Your task to perform on an android device: Go to display settings Image 0: 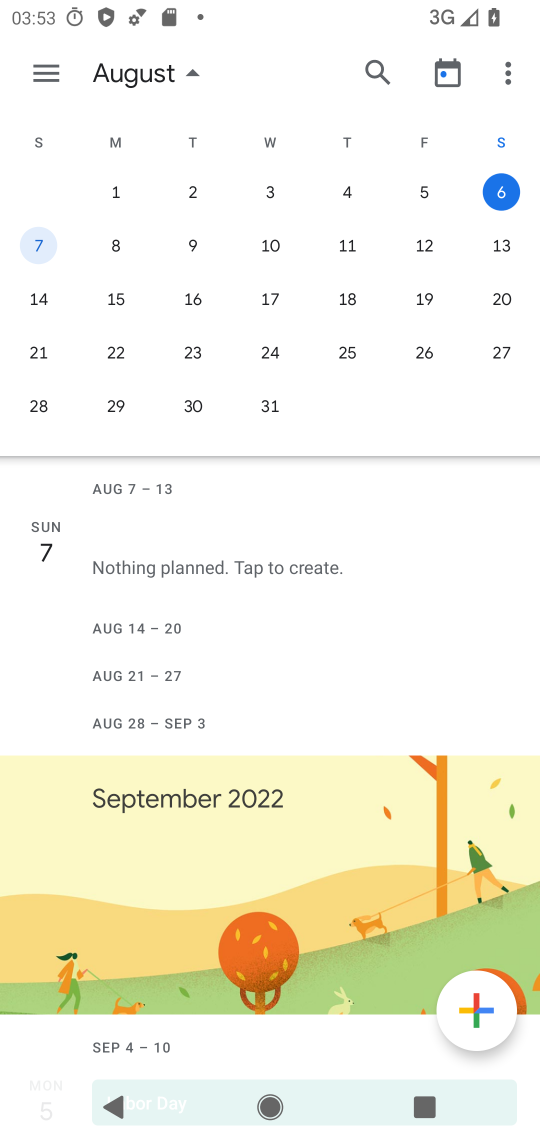
Step 0: press home button
Your task to perform on an android device: Go to display settings Image 1: 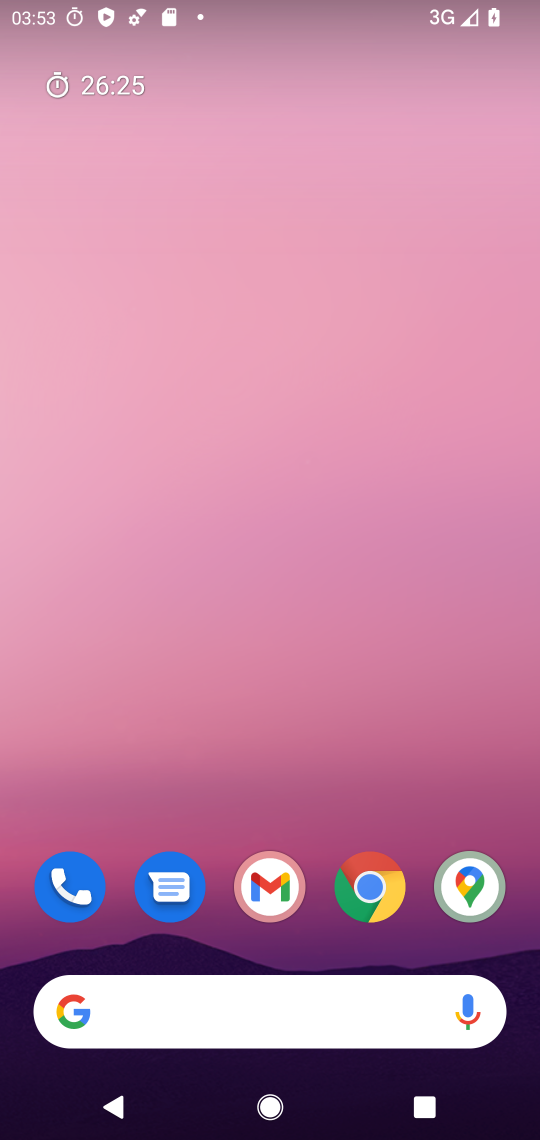
Step 1: drag from (303, 835) to (345, 360)
Your task to perform on an android device: Go to display settings Image 2: 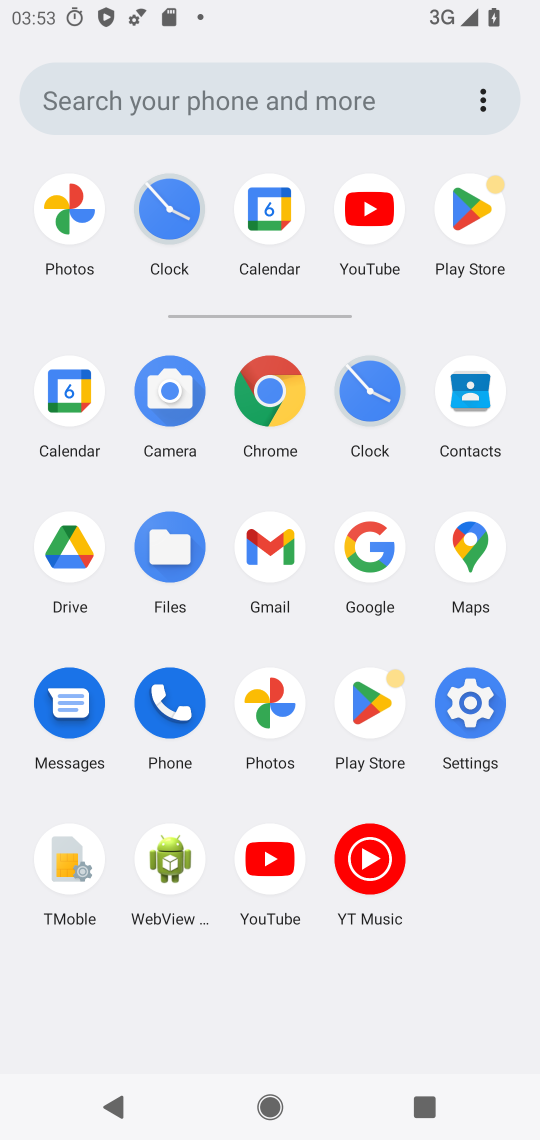
Step 2: click (449, 701)
Your task to perform on an android device: Go to display settings Image 3: 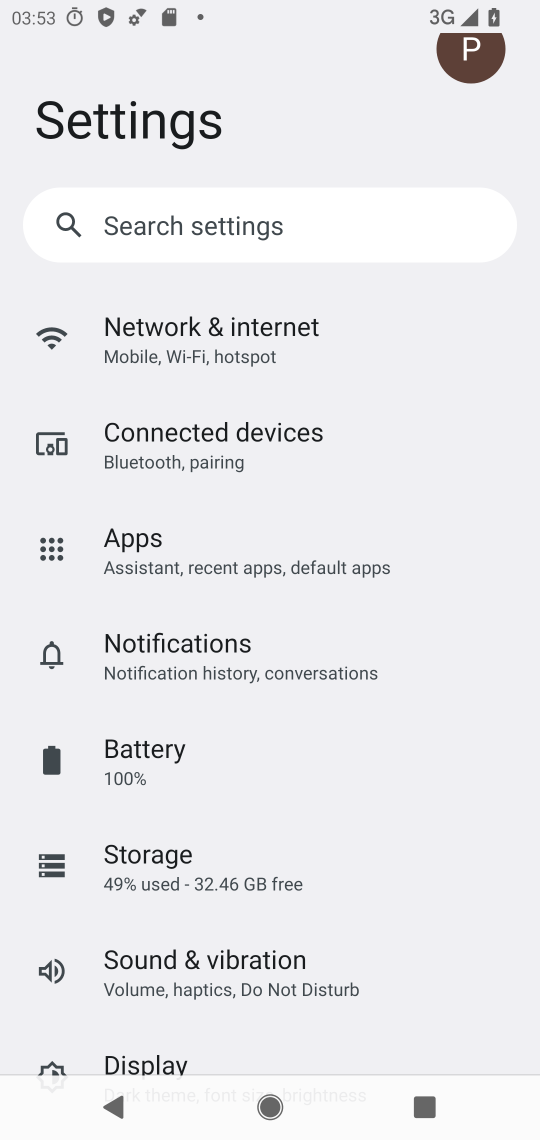
Step 3: drag from (480, 800) to (480, 672)
Your task to perform on an android device: Go to display settings Image 4: 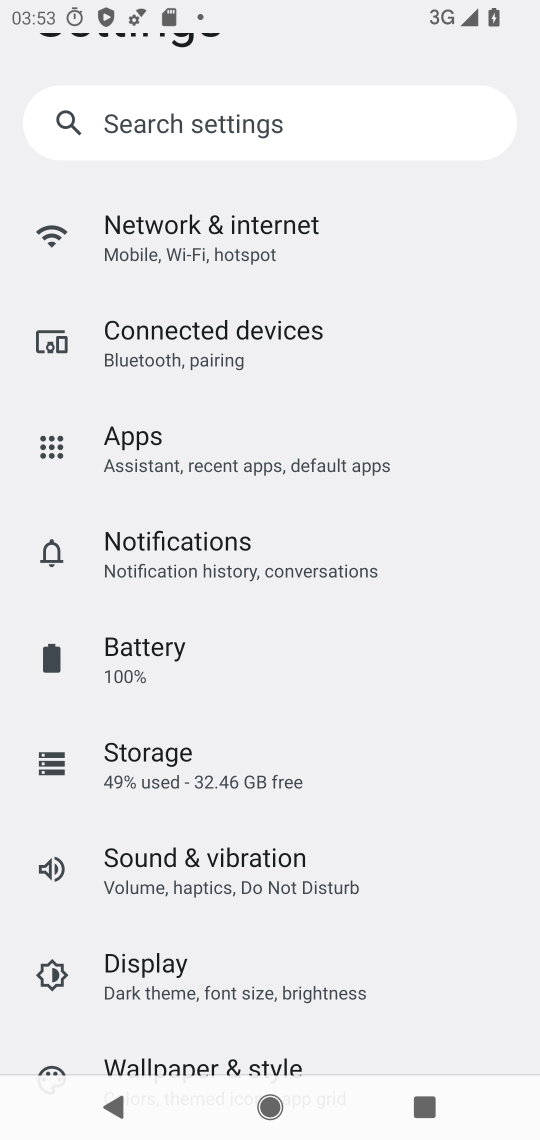
Step 4: drag from (459, 863) to (465, 727)
Your task to perform on an android device: Go to display settings Image 5: 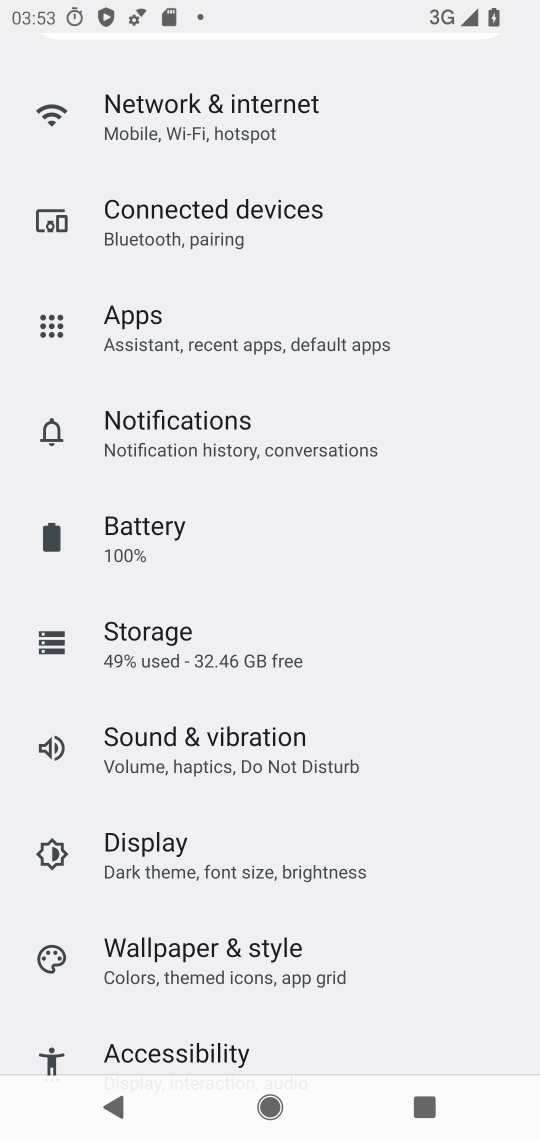
Step 5: drag from (455, 889) to (476, 676)
Your task to perform on an android device: Go to display settings Image 6: 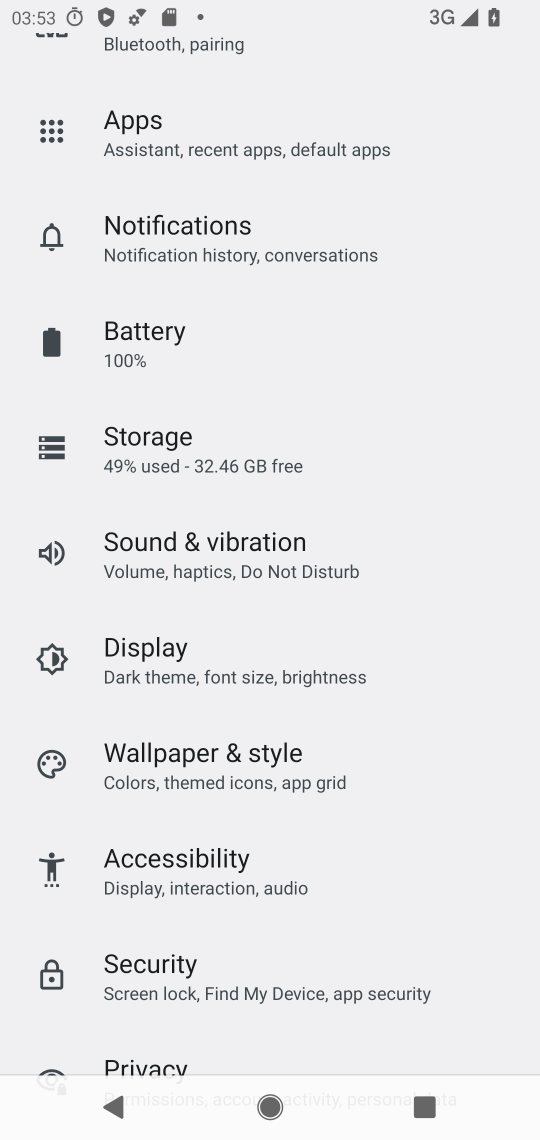
Step 6: drag from (469, 802) to (467, 663)
Your task to perform on an android device: Go to display settings Image 7: 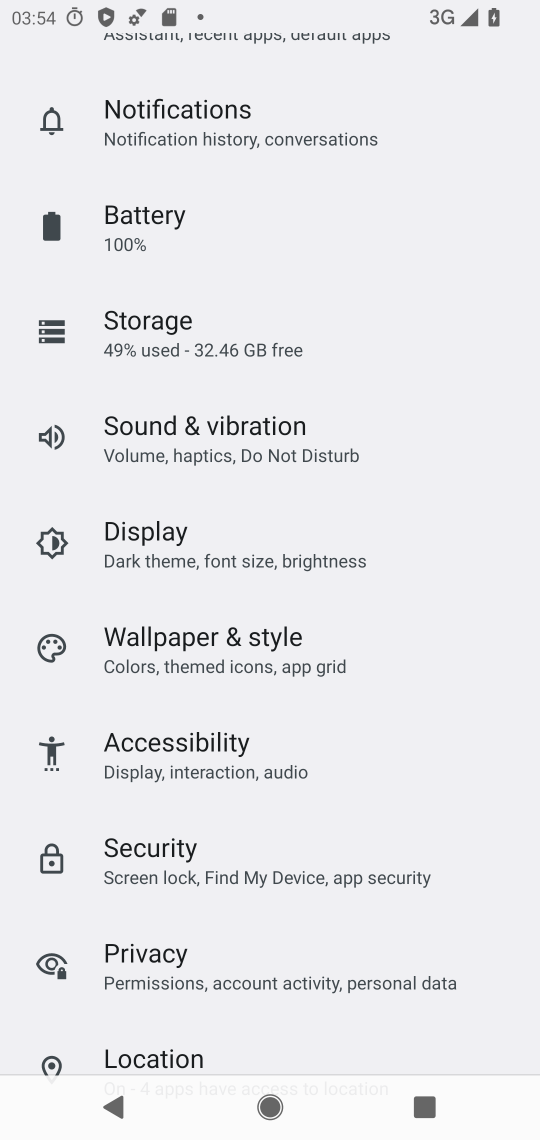
Step 7: drag from (476, 793) to (470, 664)
Your task to perform on an android device: Go to display settings Image 8: 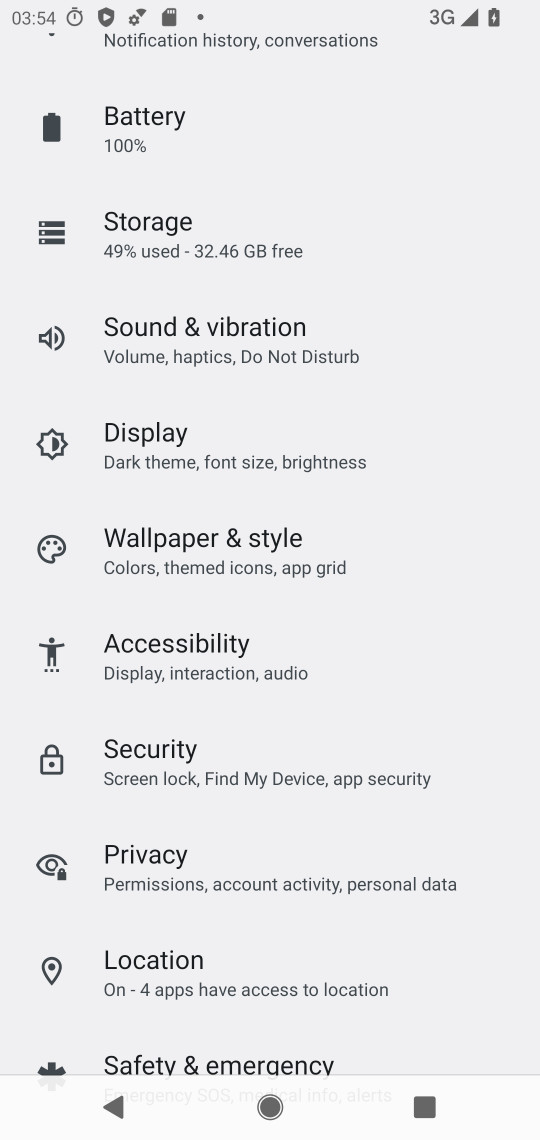
Step 8: drag from (469, 832) to (470, 687)
Your task to perform on an android device: Go to display settings Image 9: 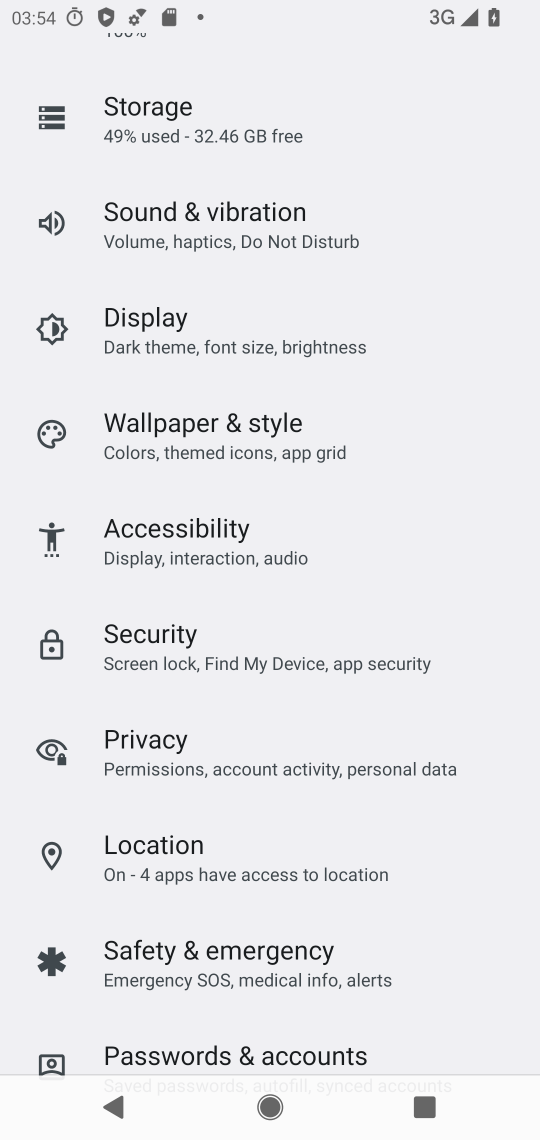
Step 9: drag from (469, 870) to (482, 790)
Your task to perform on an android device: Go to display settings Image 10: 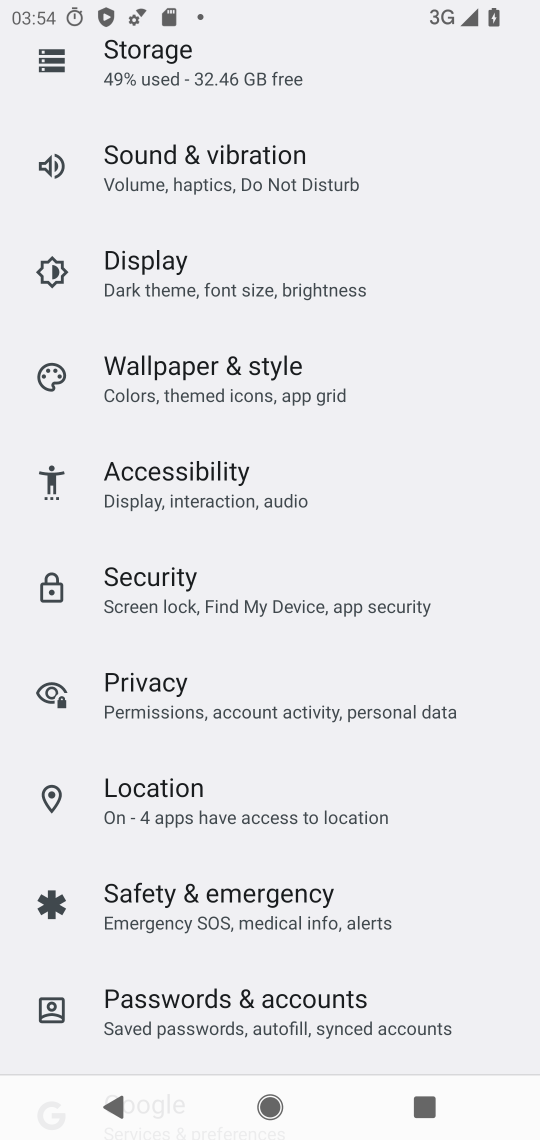
Step 10: drag from (488, 888) to (489, 801)
Your task to perform on an android device: Go to display settings Image 11: 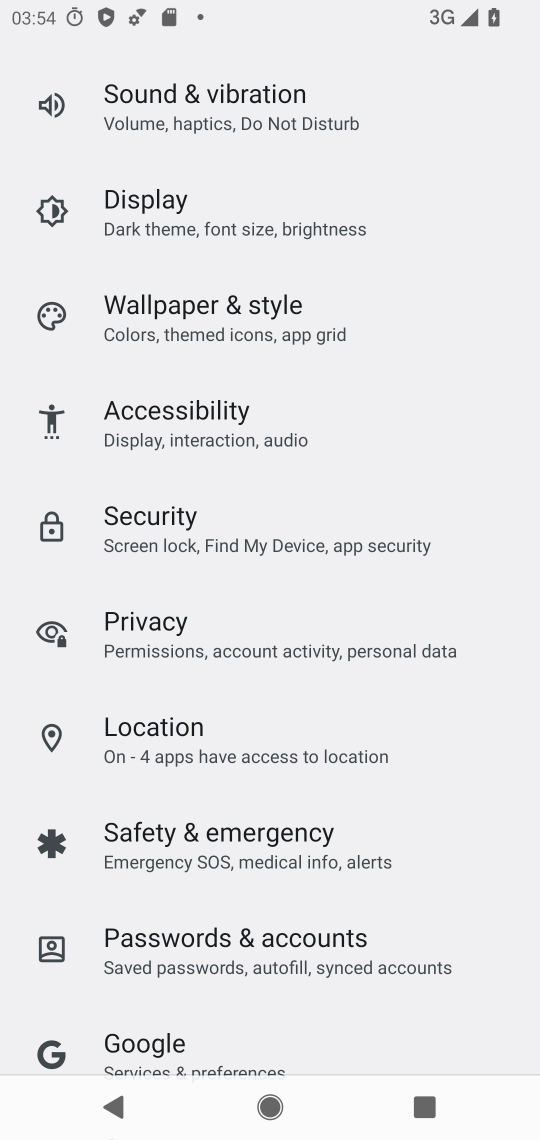
Step 11: drag from (487, 888) to (488, 804)
Your task to perform on an android device: Go to display settings Image 12: 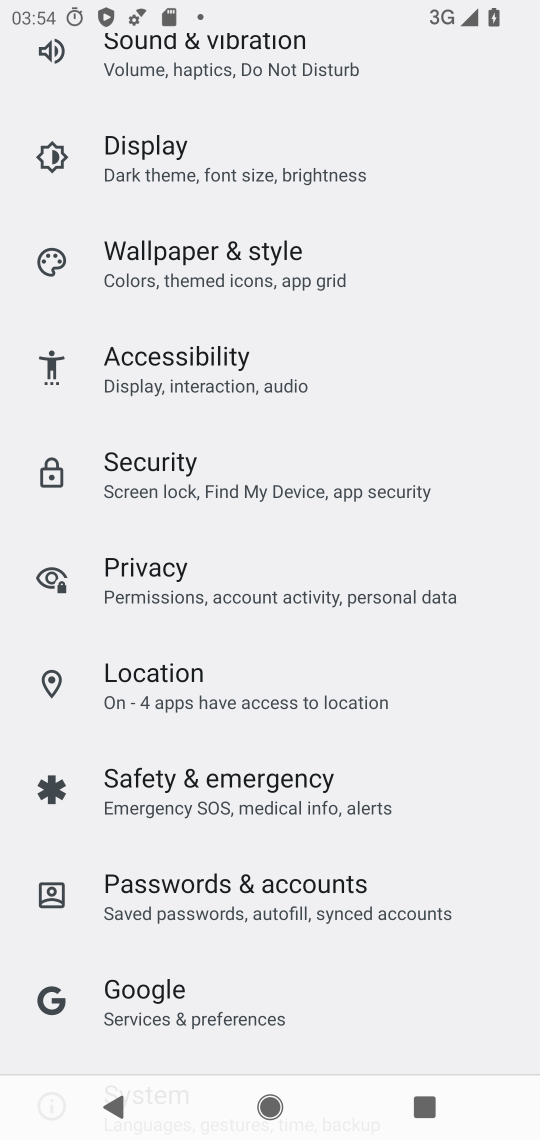
Step 12: drag from (480, 957) to (492, 841)
Your task to perform on an android device: Go to display settings Image 13: 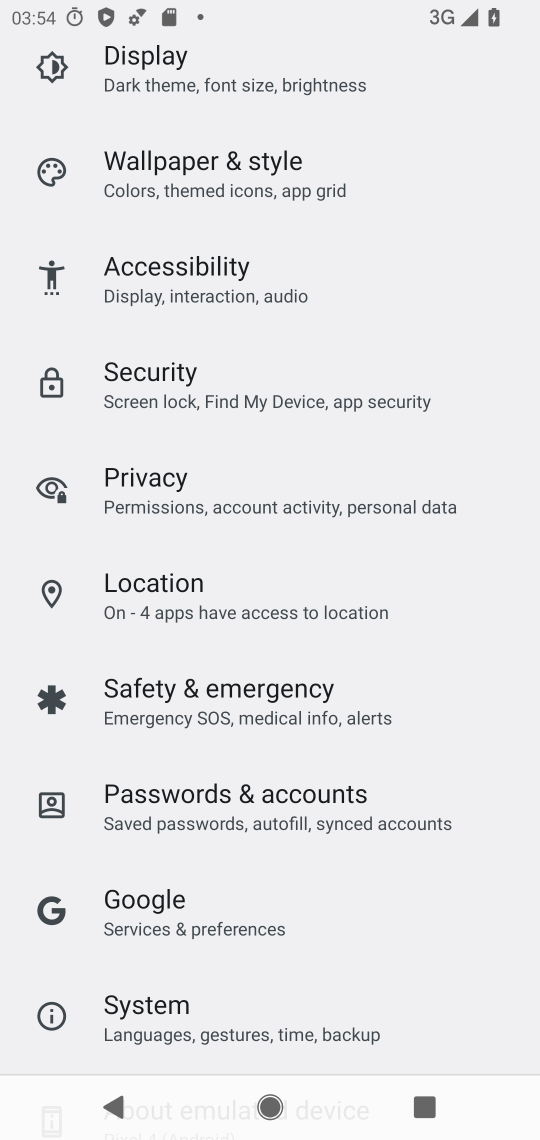
Step 13: drag from (478, 909) to (478, 815)
Your task to perform on an android device: Go to display settings Image 14: 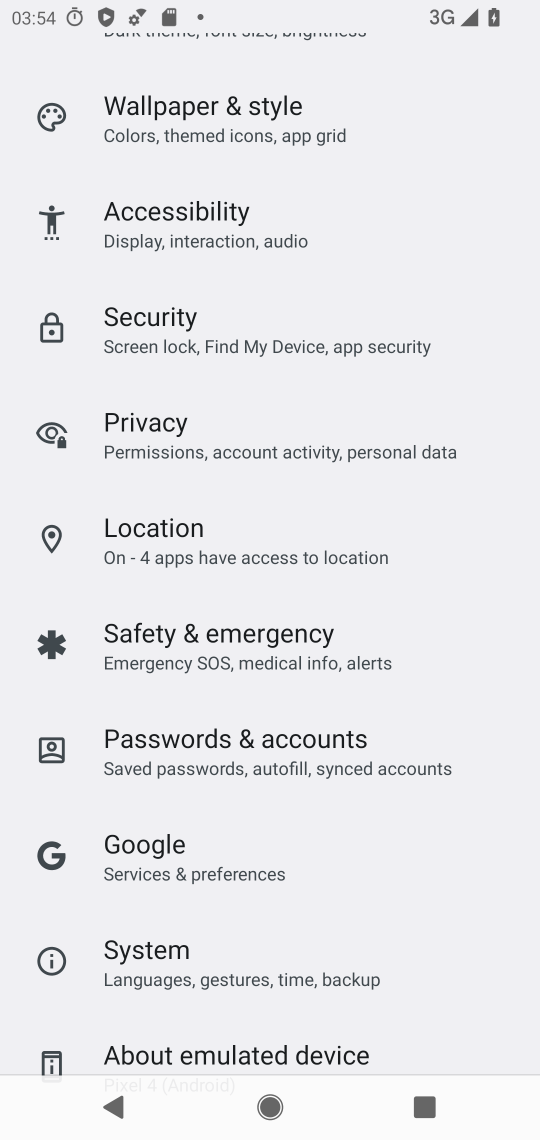
Step 14: drag from (479, 557) to (482, 708)
Your task to perform on an android device: Go to display settings Image 15: 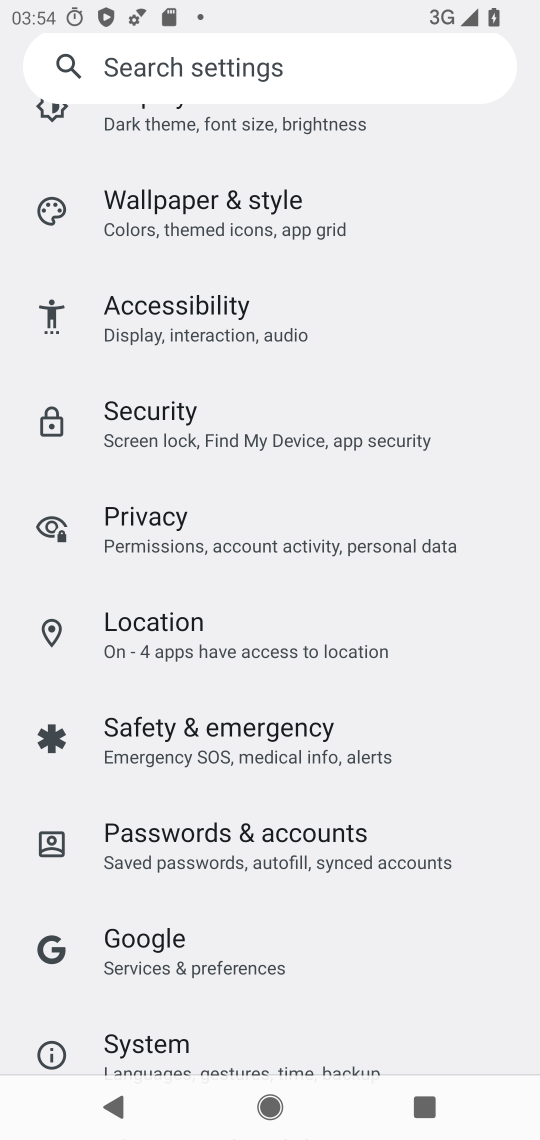
Step 15: drag from (483, 499) to (487, 646)
Your task to perform on an android device: Go to display settings Image 16: 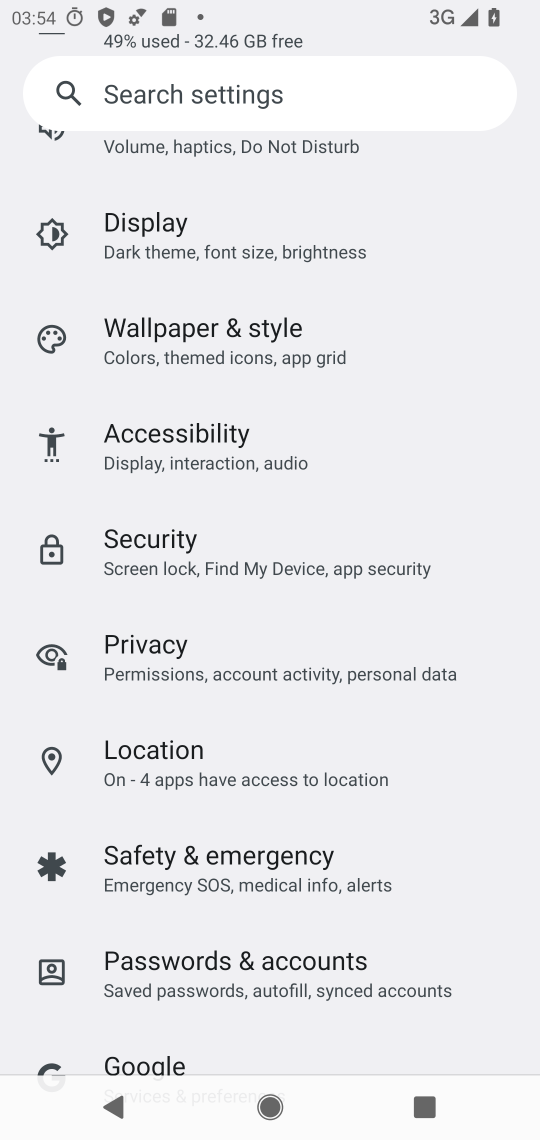
Step 16: drag from (465, 493) to (486, 665)
Your task to perform on an android device: Go to display settings Image 17: 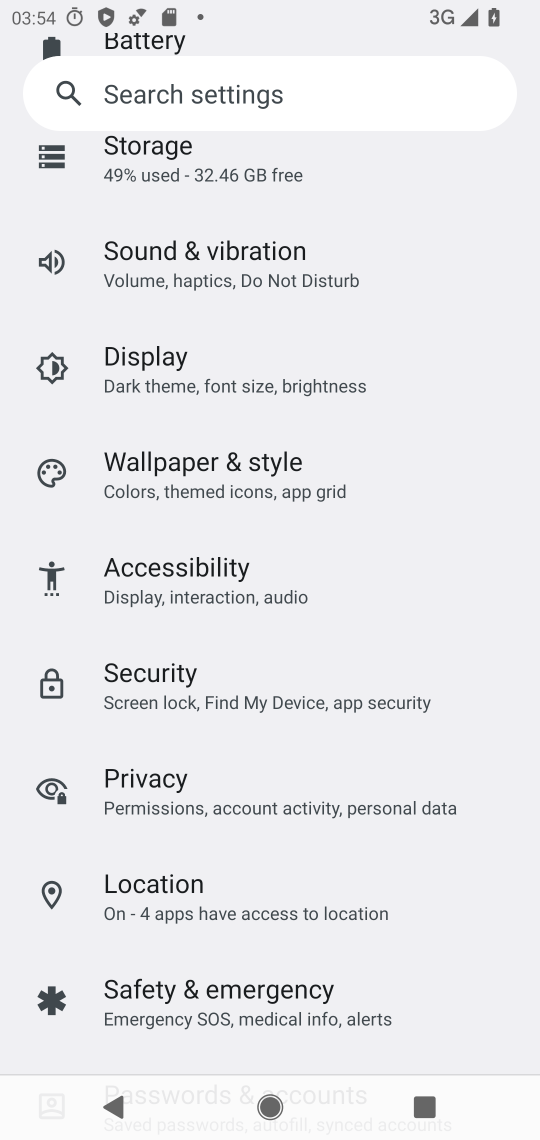
Step 17: drag from (454, 445) to (472, 607)
Your task to perform on an android device: Go to display settings Image 18: 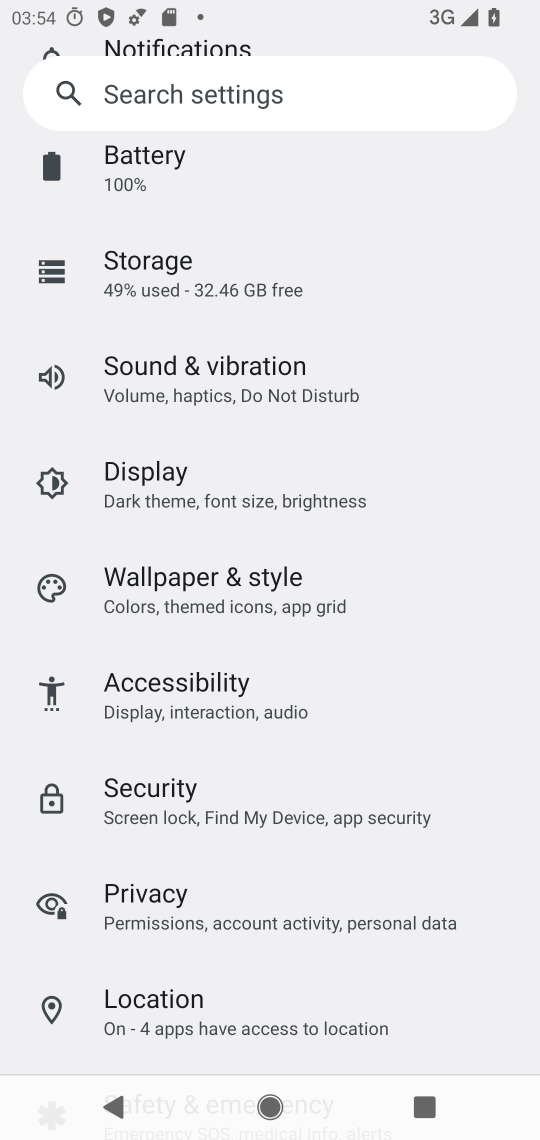
Step 18: click (381, 491)
Your task to perform on an android device: Go to display settings Image 19: 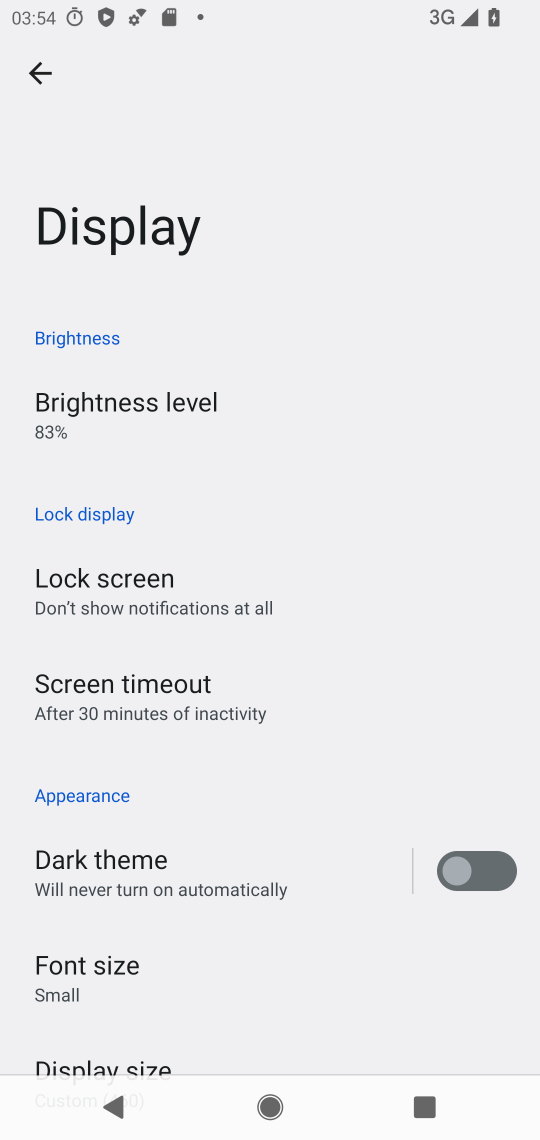
Step 19: task complete